Your task to perform on an android device: Open the phone app and click the voicemail tab. Image 0: 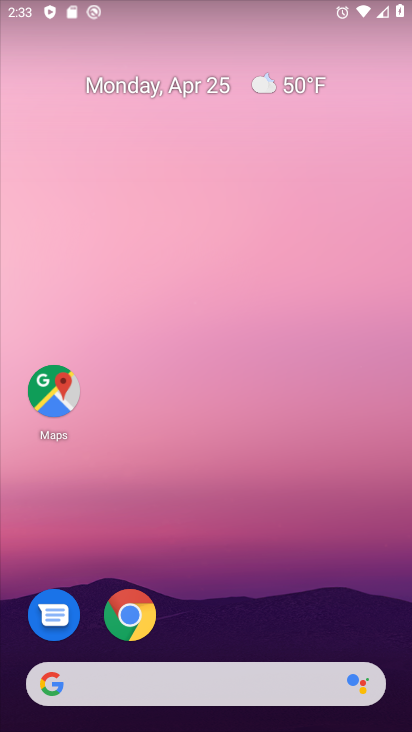
Step 0: drag from (239, 482) to (202, 40)
Your task to perform on an android device: Open the phone app and click the voicemail tab. Image 1: 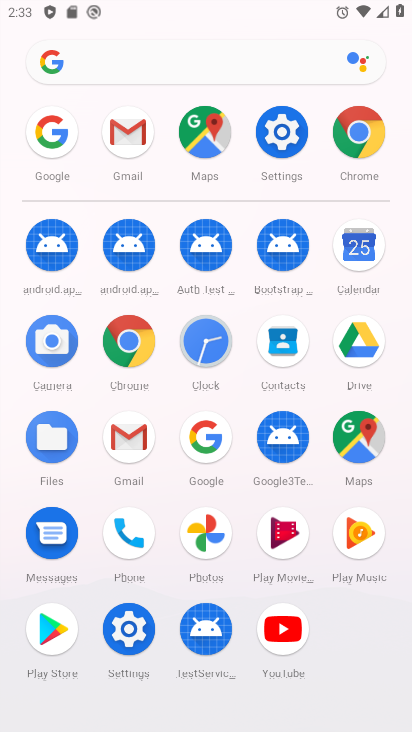
Step 1: click (127, 530)
Your task to perform on an android device: Open the phone app and click the voicemail tab. Image 2: 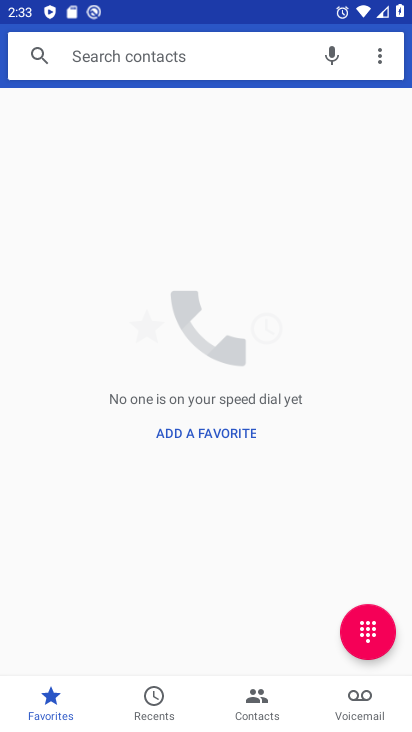
Step 2: click (358, 705)
Your task to perform on an android device: Open the phone app and click the voicemail tab. Image 3: 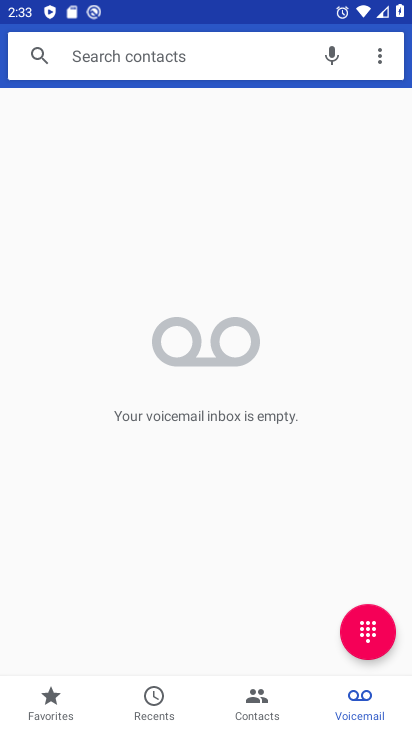
Step 3: task complete